Your task to perform on an android device: Search for seafood restaurants on Google Maps Image 0: 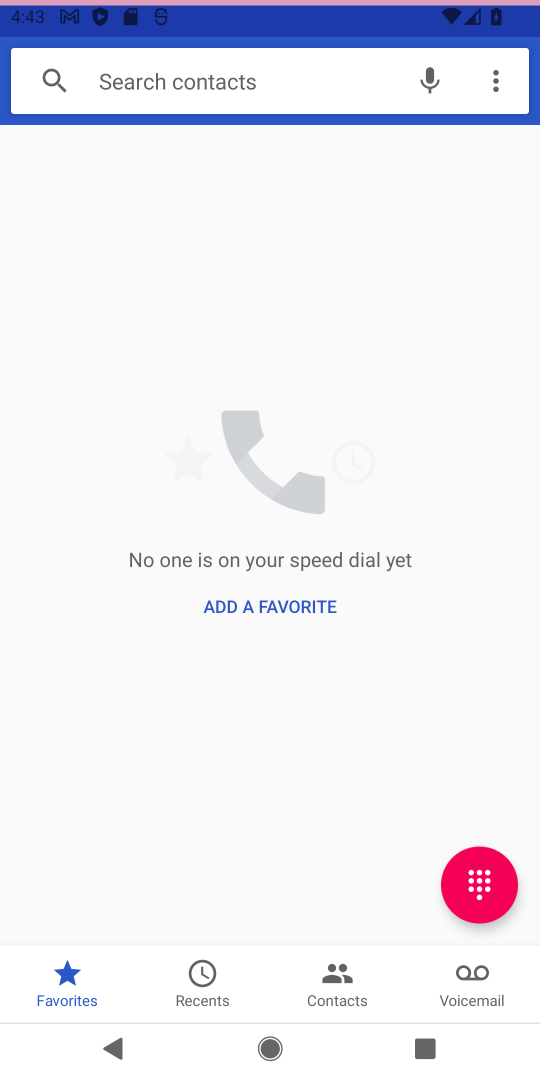
Step 0: press back button
Your task to perform on an android device: Search for seafood restaurants on Google Maps Image 1: 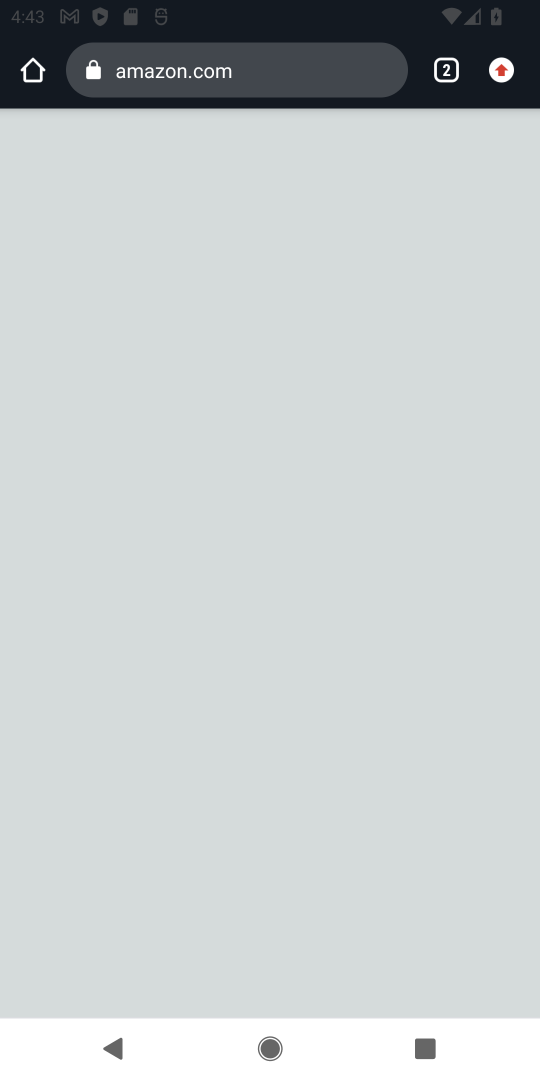
Step 1: press back button
Your task to perform on an android device: Search for seafood restaurants on Google Maps Image 2: 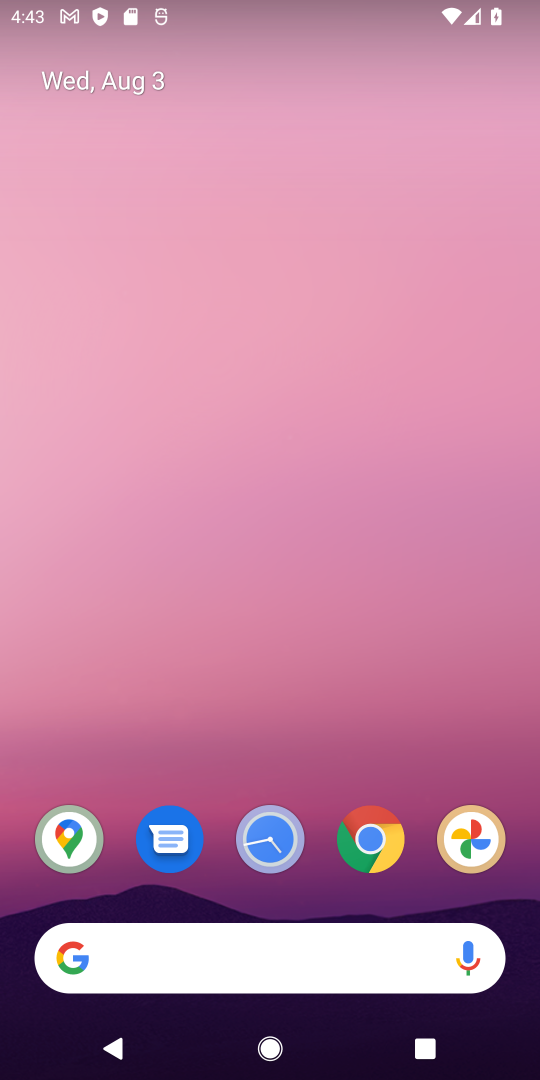
Step 2: drag from (194, 617) to (240, 164)
Your task to perform on an android device: Search for seafood restaurants on Google Maps Image 3: 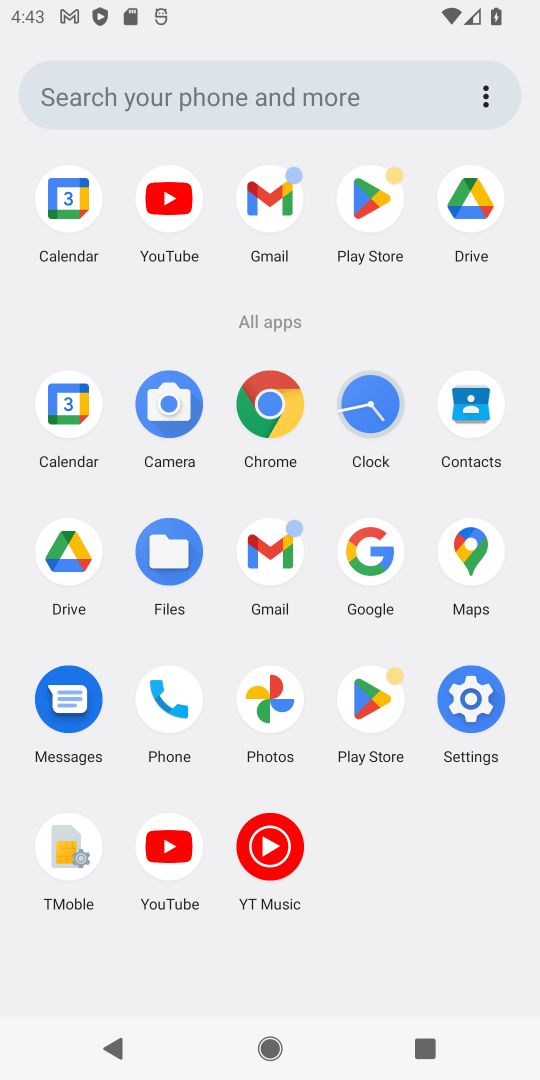
Step 3: click (471, 536)
Your task to perform on an android device: Search for seafood restaurants on Google Maps Image 4: 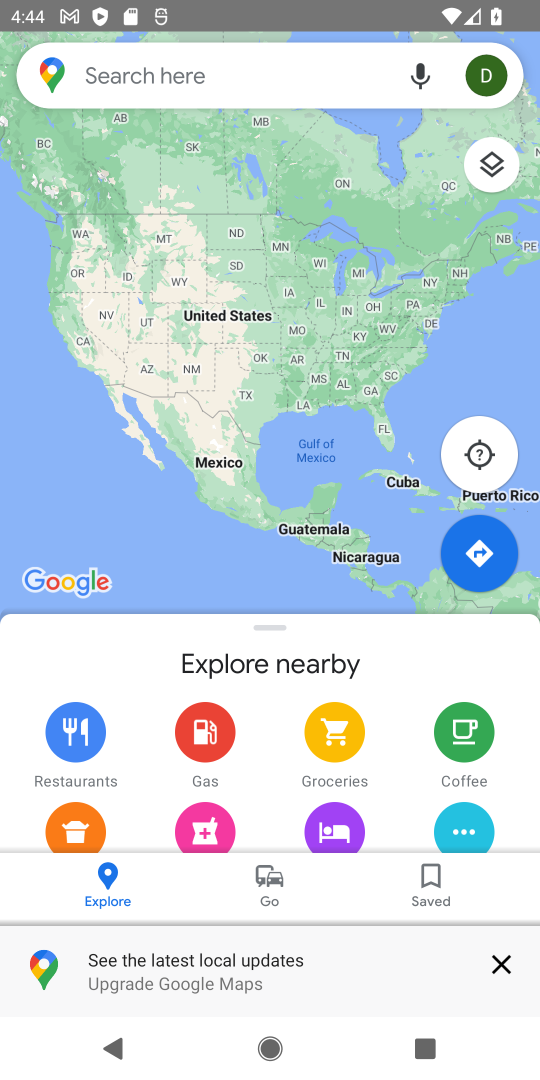
Step 4: click (162, 62)
Your task to perform on an android device: Search for seafood restaurants on Google Maps Image 5: 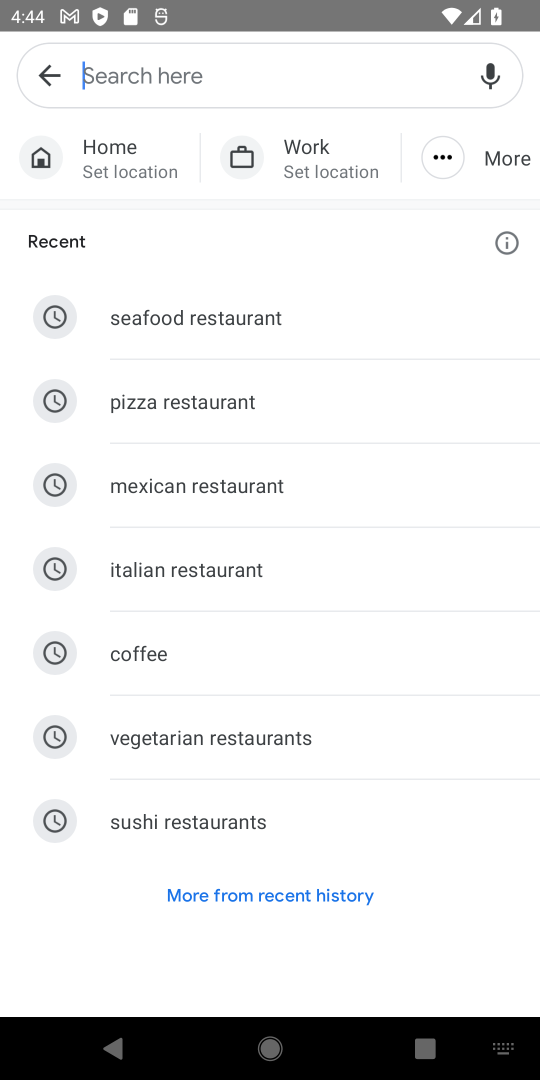
Step 5: type "sea"
Your task to perform on an android device: Search for seafood restaurants on Google Maps Image 6: 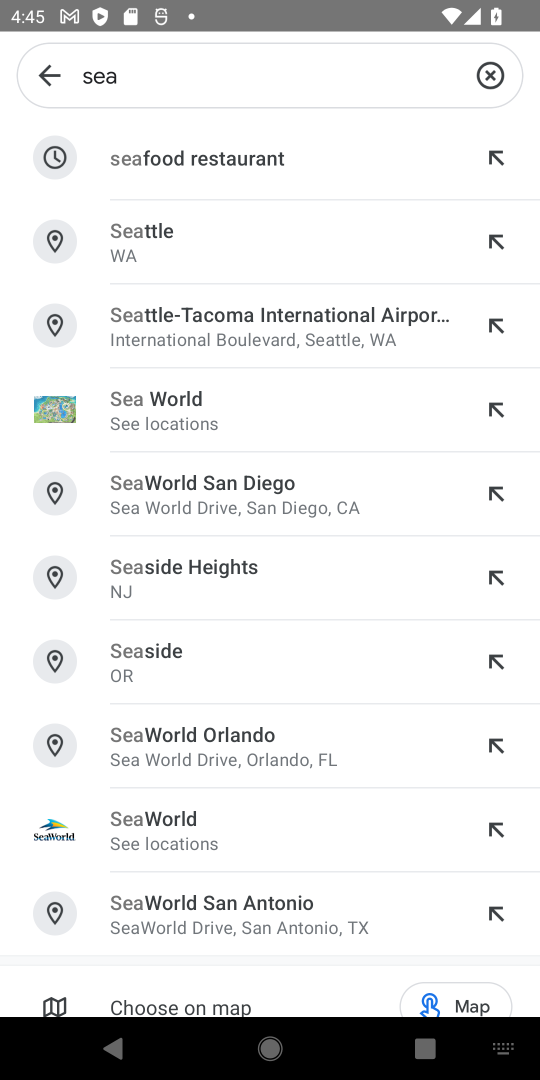
Step 6: click (285, 165)
Your task to perform on an android device: Search for seafood restaurants on Google Maps Image 7: 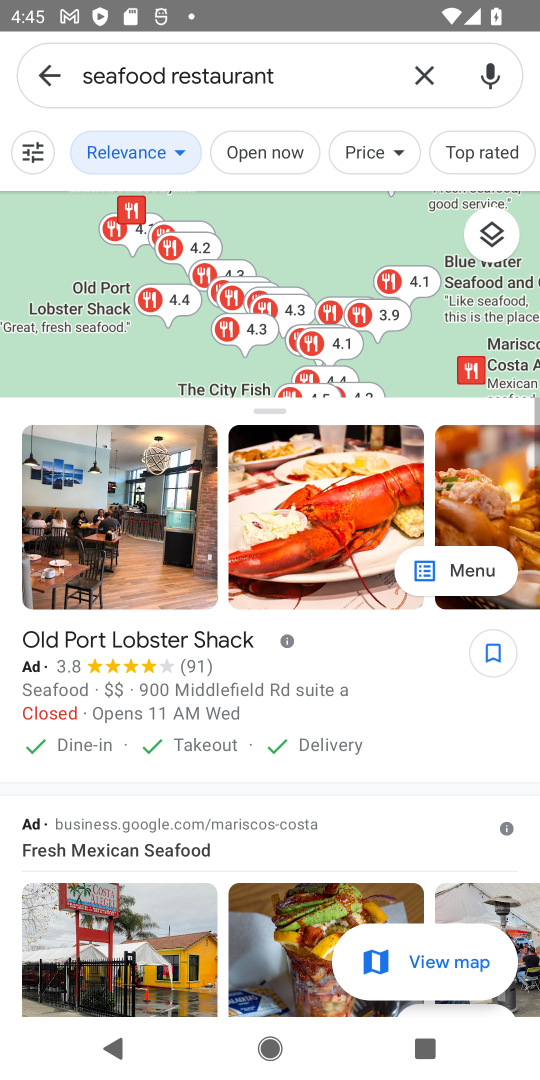
Step 7: task complete